Your task to perform on an android device: Open Yahoo.com Image 0: 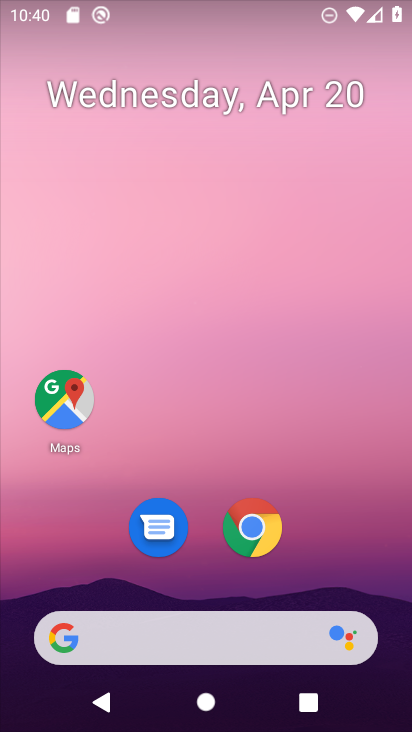
Step 0: drag from (221, 592) to (237, 2)
Your task to perform on an android device: Open Yahoo.com Image 1: 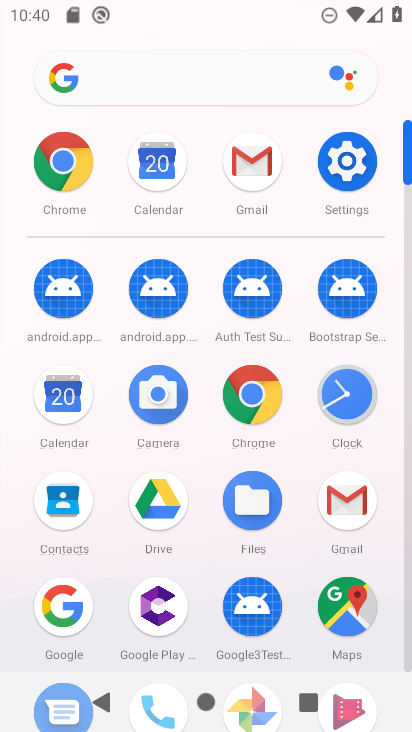
Step 1: click (254, 411)
Your task to perform on an android device: Open Yahoo.com Image 2: 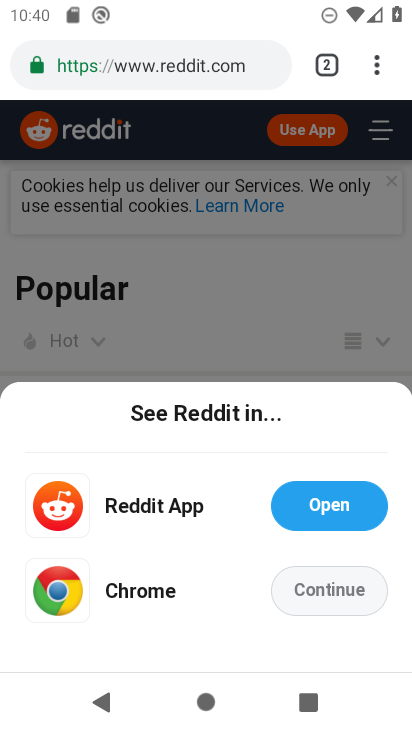
Step 2: click (162, 64)
Your task to perform on an android device: Open Yahoo.com Image 3: 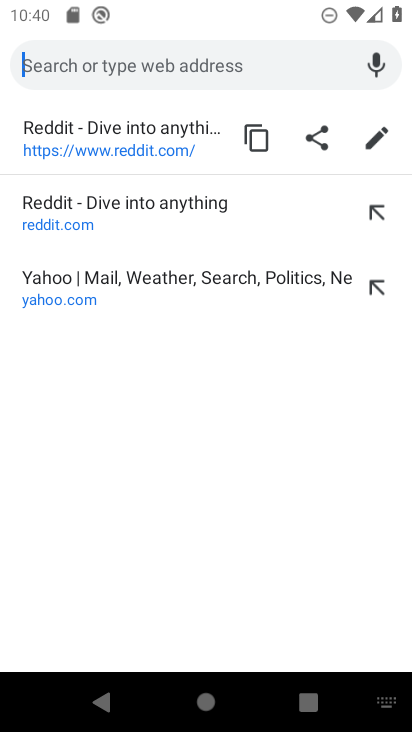
Step 3: type "yahoo.com"
Your task to perform on an android device: Open Yahoo.com Image 4: 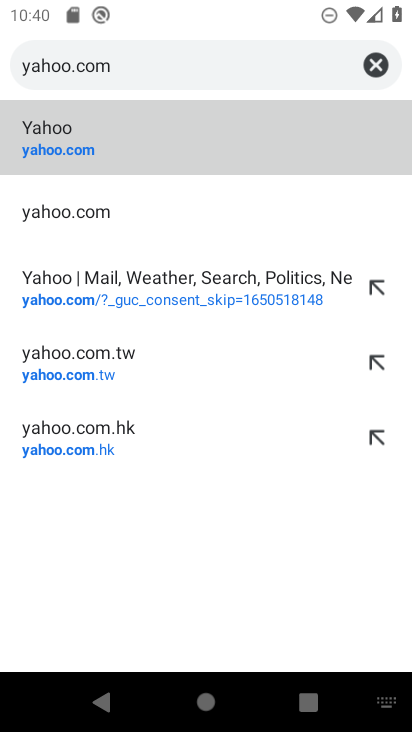
Step 4: click (98, 138)
Your task to perform on an android device: Open Yahoo.com Image 5: 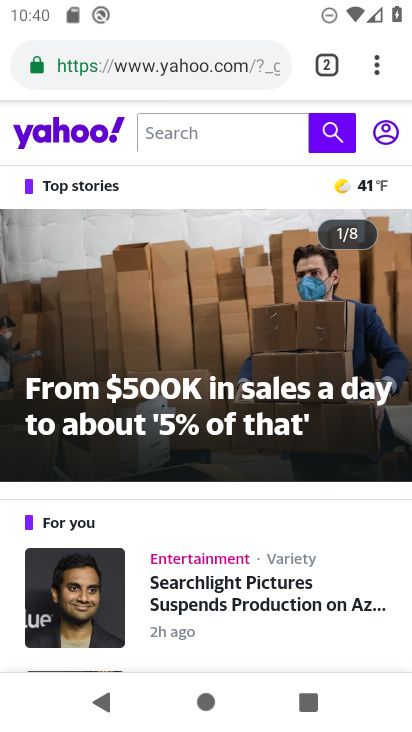
Step 5: task complete